Your task to perform on an android device: turn on bluetooth scan Image 0: 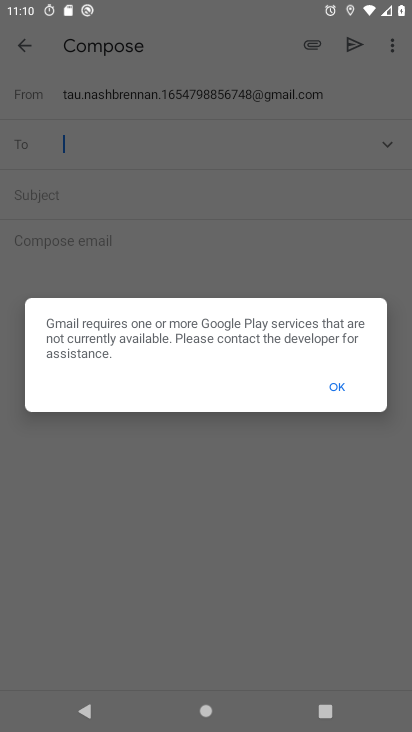
Step 0: click (337, 384)
Your task to perform on an android device: turn on bluetooth scan Image 1: 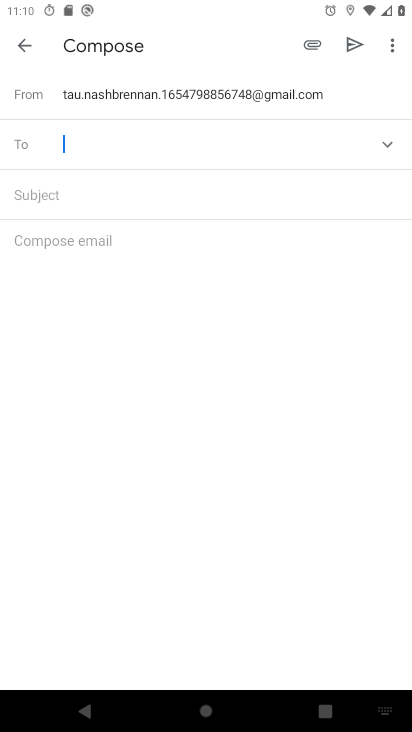
Step 1: click (21, 47)
Your task to perform on an android device: turn on bluetooth scan Image 2: 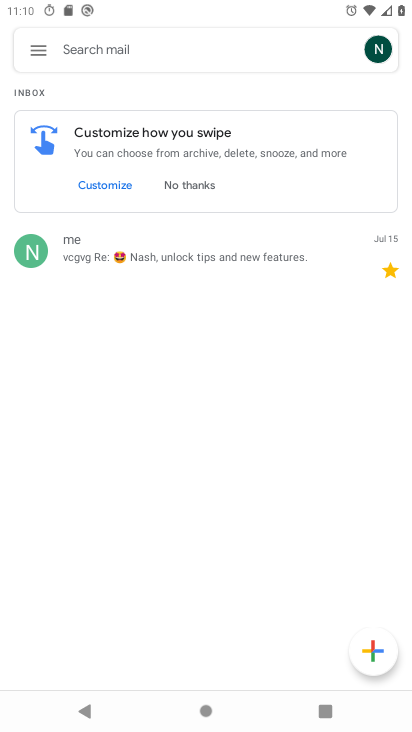
Step 2: press back button
Your task to perform on an android device: turn on bluetooth scan Image 3: 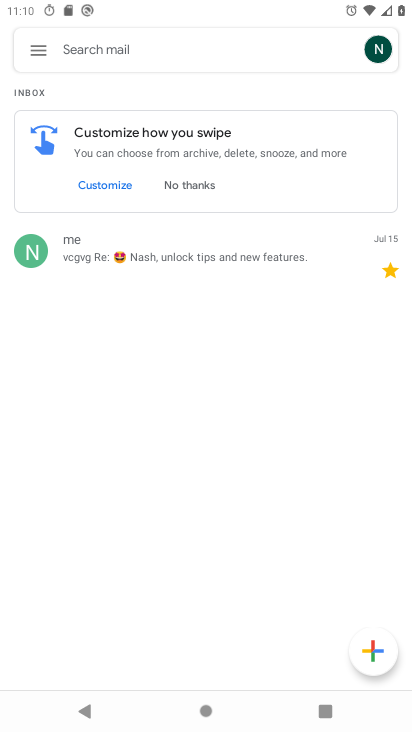
Step 3: press back button
Your task to perform on an android device: turn on bluetooth scan Image 4: 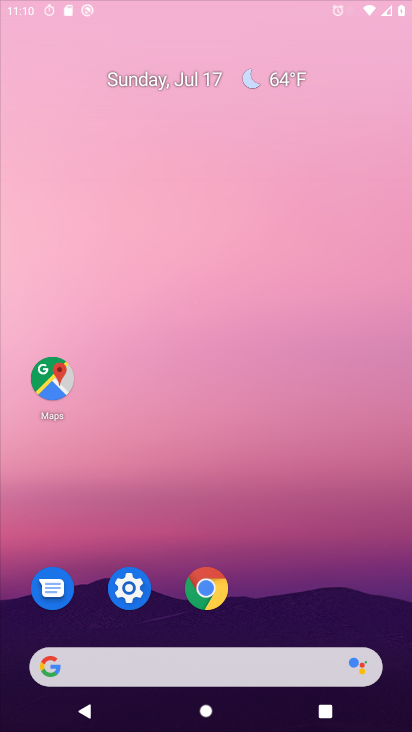
Step 4: press back button
Your task to perform on an android device: turn on bluetooth scan Image 5: 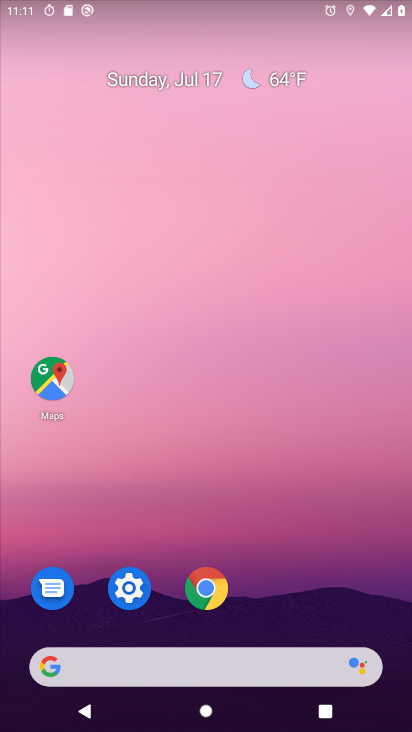
Step 5: drag from (191, 418) to (157, 145)
Your task to perform on an android device: turn on bluetooth scan Image 6: 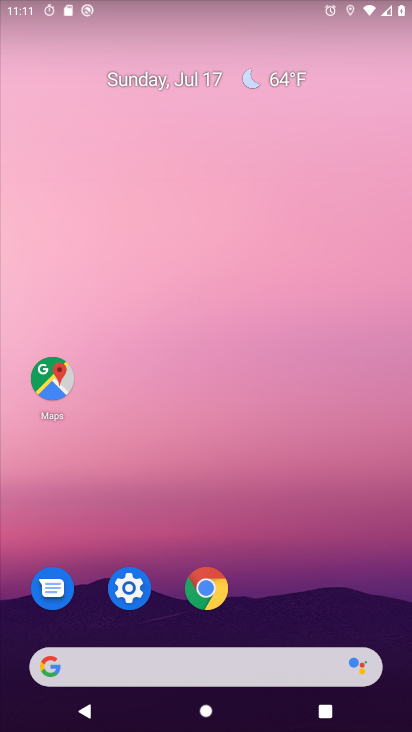
Step 6: drag from (237, 702) to (220, 23)
Your task to perform on an android device: turn on bluetooth scan Image 7: 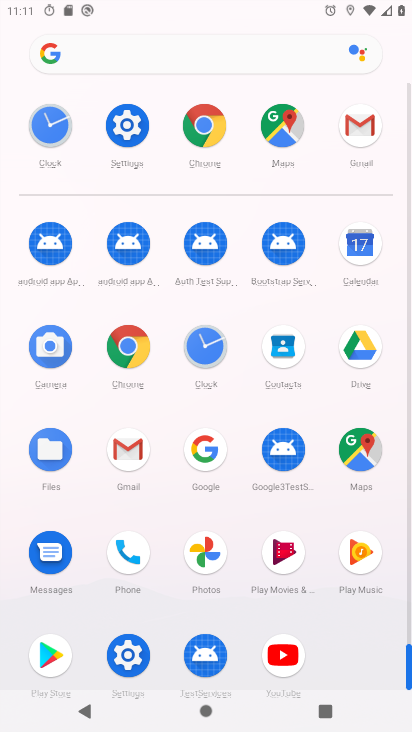
Step 7: drag from (261, 581) to (232, 112)
Your task to perform on an android device: turn on bluetooth scan Image 8: 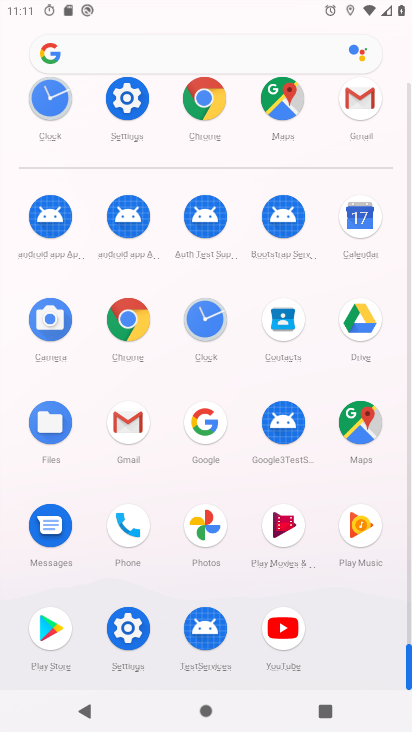
Step 8: click (130, 105)
Your task to perform on an android device: turn on bluetooth scan Image 9: 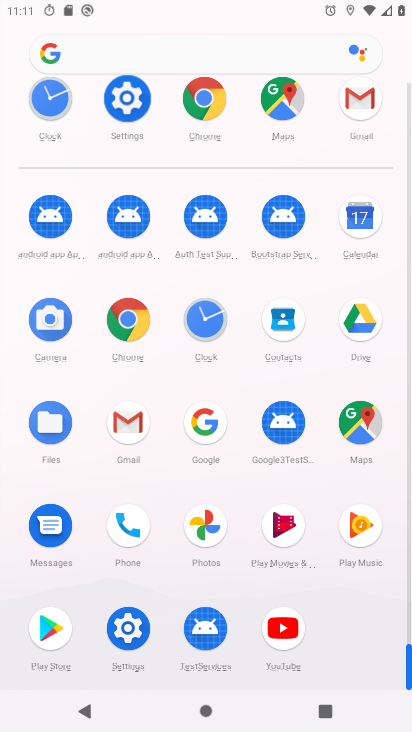
Step 9: click (130, 106)
Your task to perform on an android device: turn on bluetooth scan Image 10: 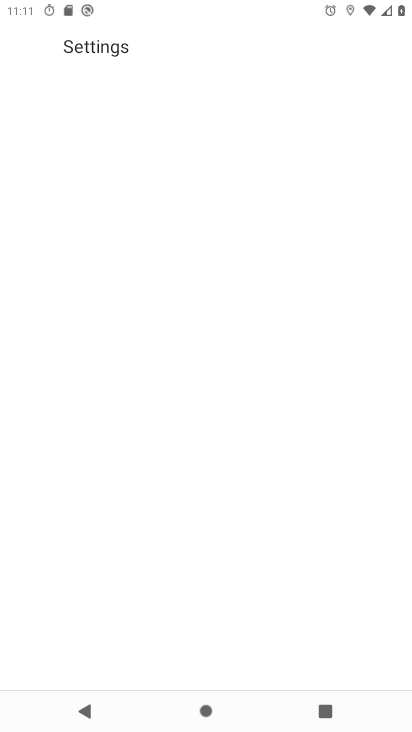
Step 10: click (133, 110)
Your task to perform on an android device: turn on bluetooth scan Image 11: 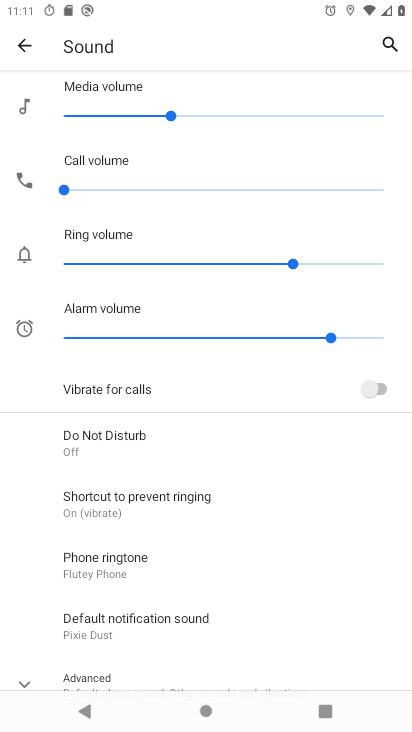
Step 11: click (21, 55)
Your task to perform on an android device: turn on bluetooth scan Image 12: 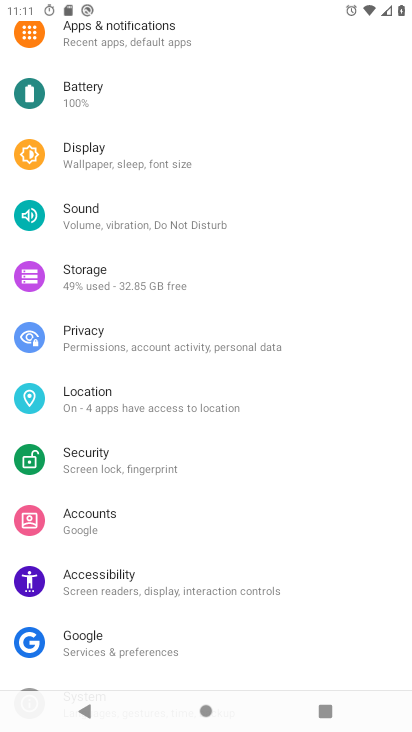
Step 12: click (123, 417)
Your task to perform on an android device: turn on bluetooth scan Image 13: 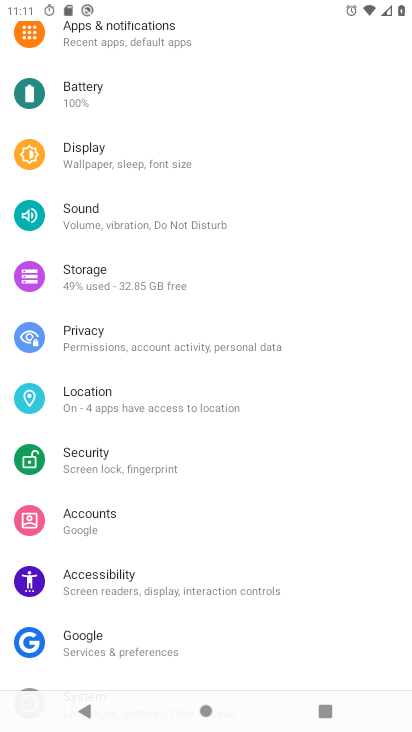
Step 13: click (121, 401)
Your task to perform on an android device: turn on bluetooth scan Image 14: 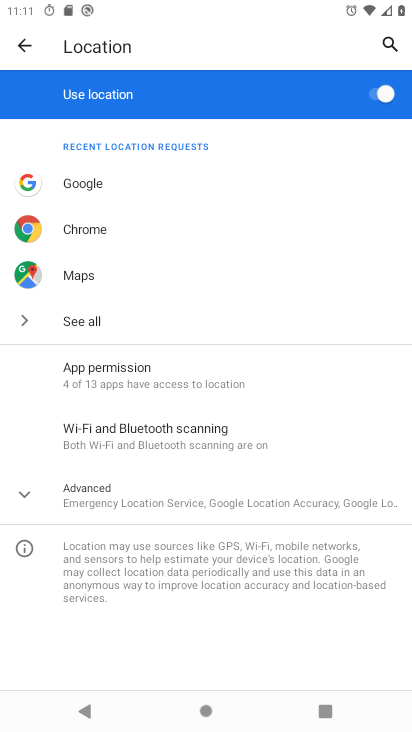
Step 14: click (158, 418)
Your task to perform on an android device: turn on bluetooth scan Image 15: 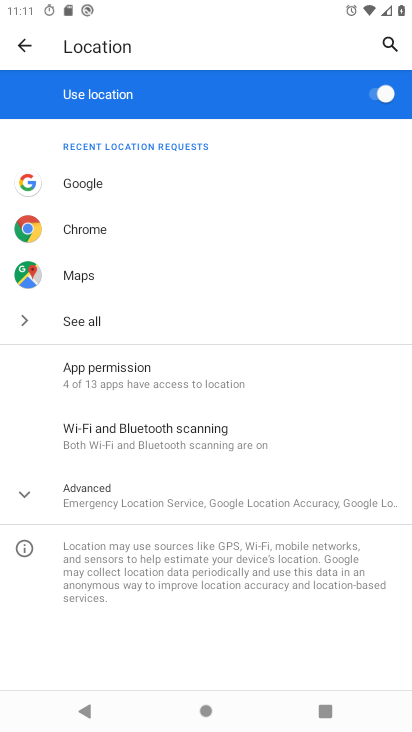
Step 15: click (164, 426)
Your task to perform on an android device: turn on bluetooth scan Image 16: 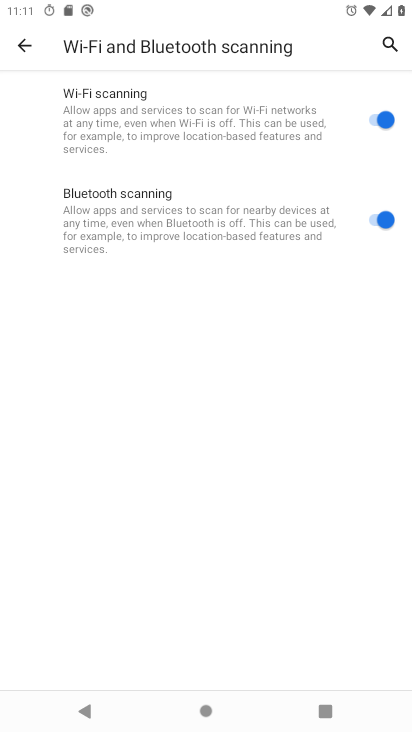
Step 16: task complete